Your task to perform on an android device: open app "Microsoft Excel" Image 0: 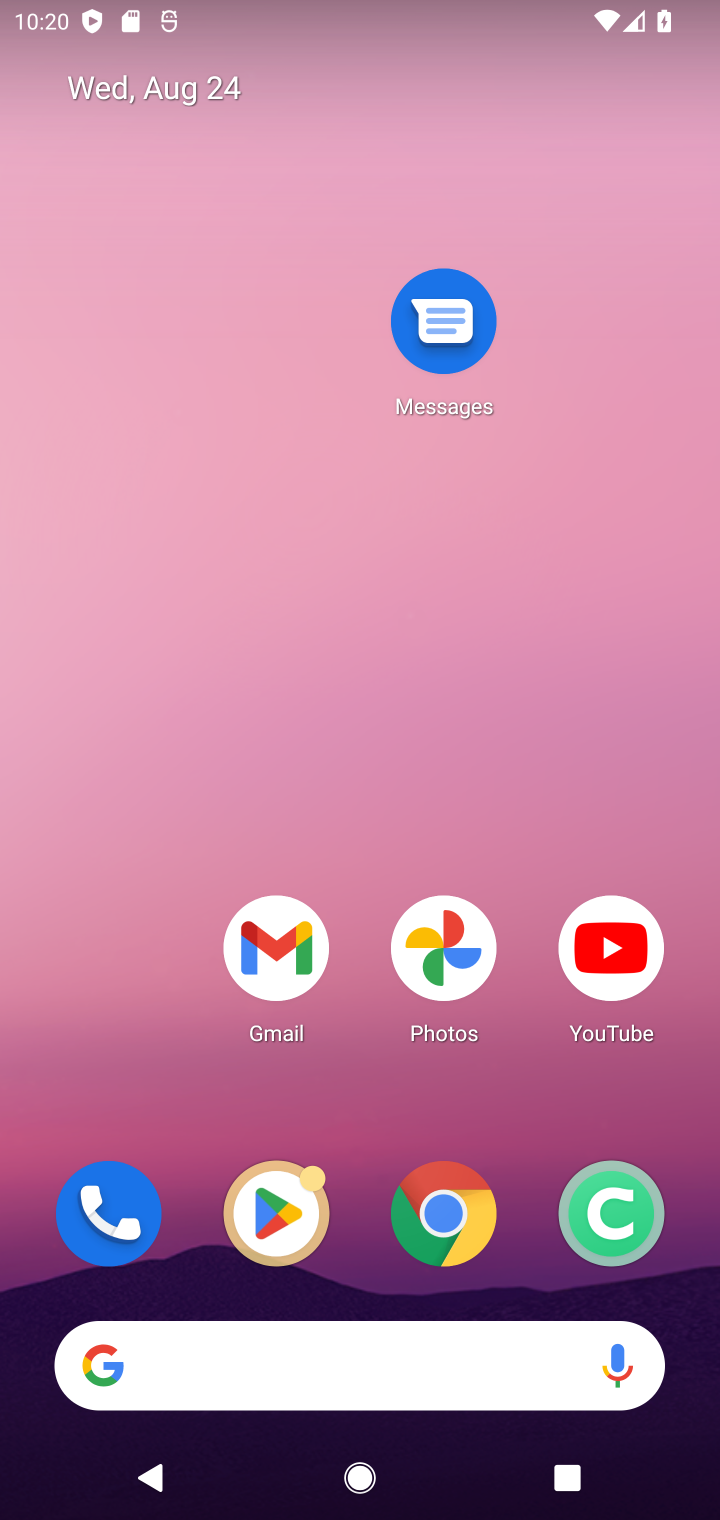
Step 0: click (296, 1208)
Your task to perform on an android device: open app "Microsoft Excel" Image 1: 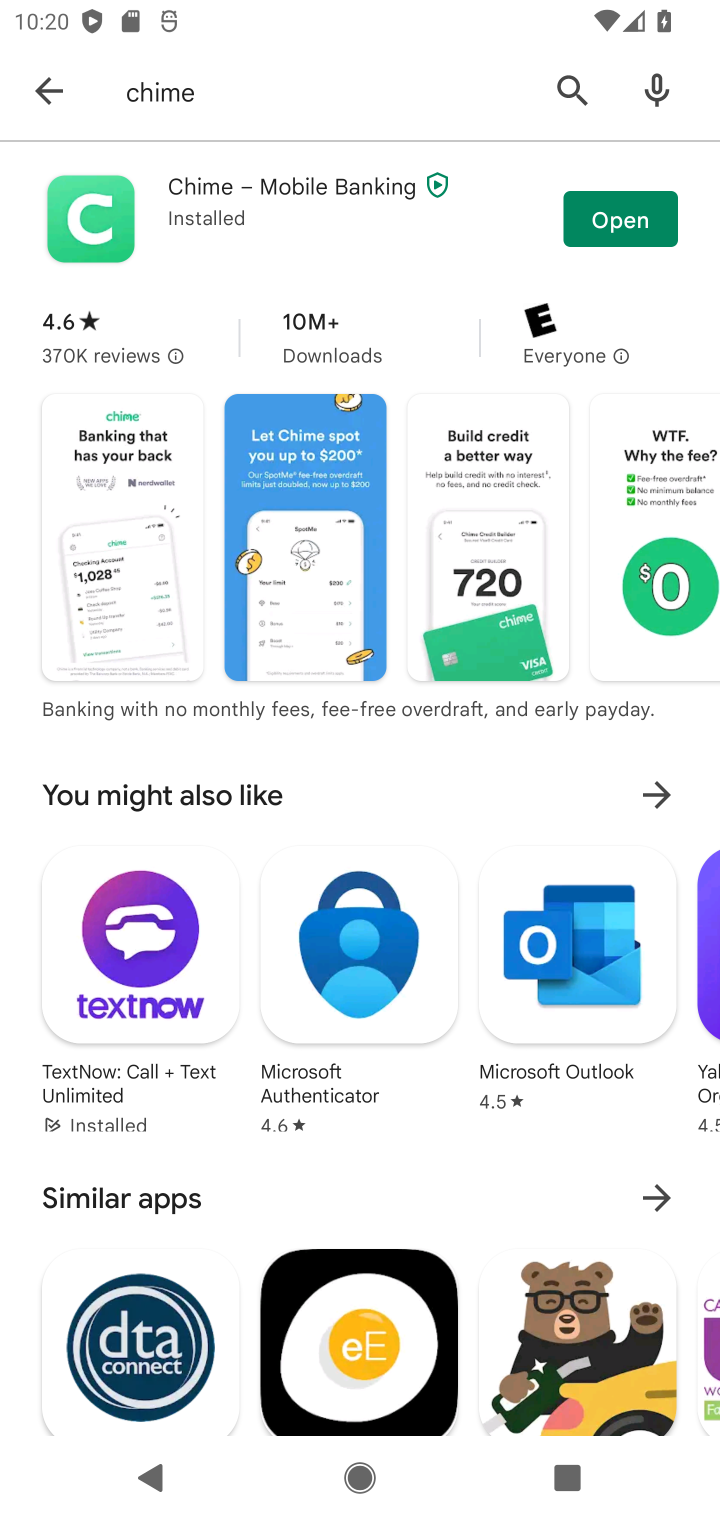
Step 1: click (271, 80)
Your task to perform on an android device: open app "Microsoft Excel" Image 2: 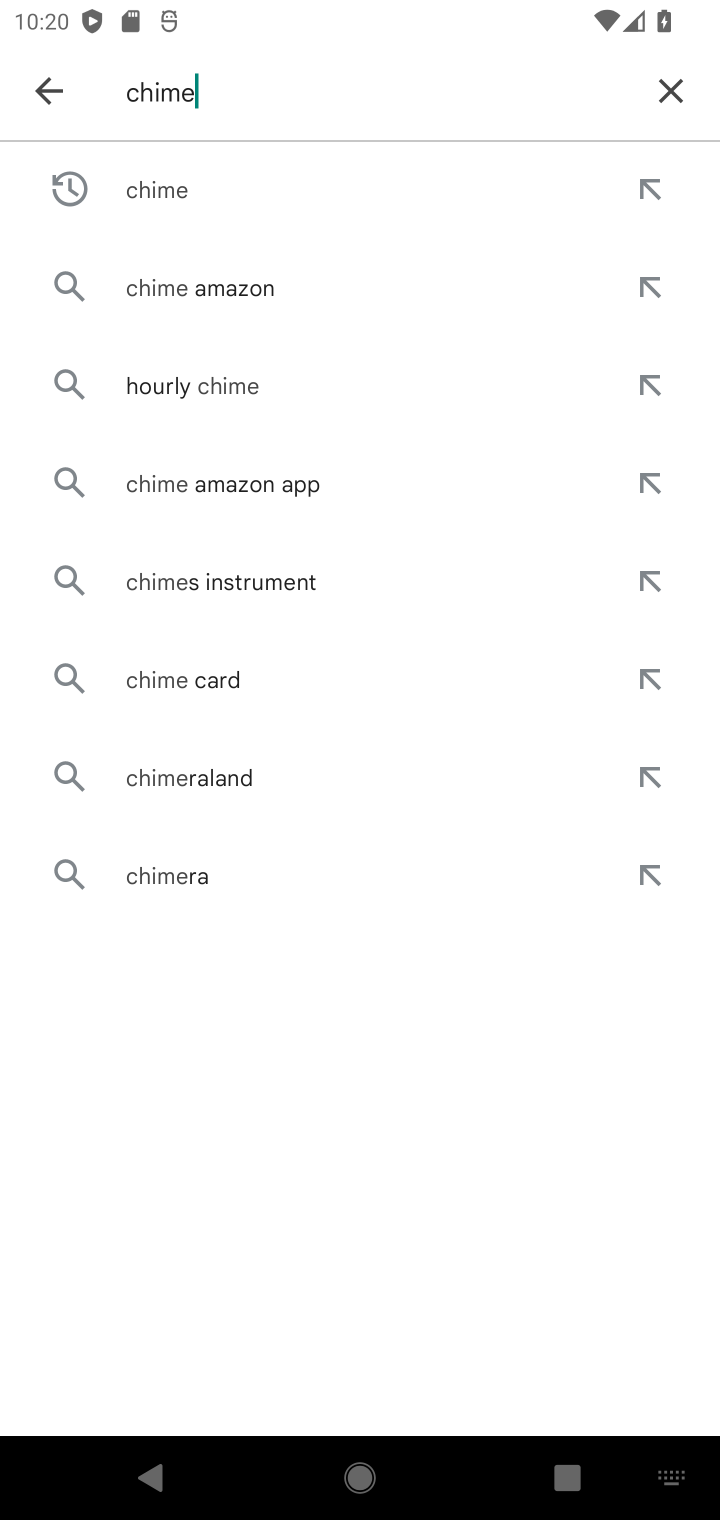
Step 2: click (674, 82)
Your task to perform on an android device: open app "Microsoft Excel" Image 3: 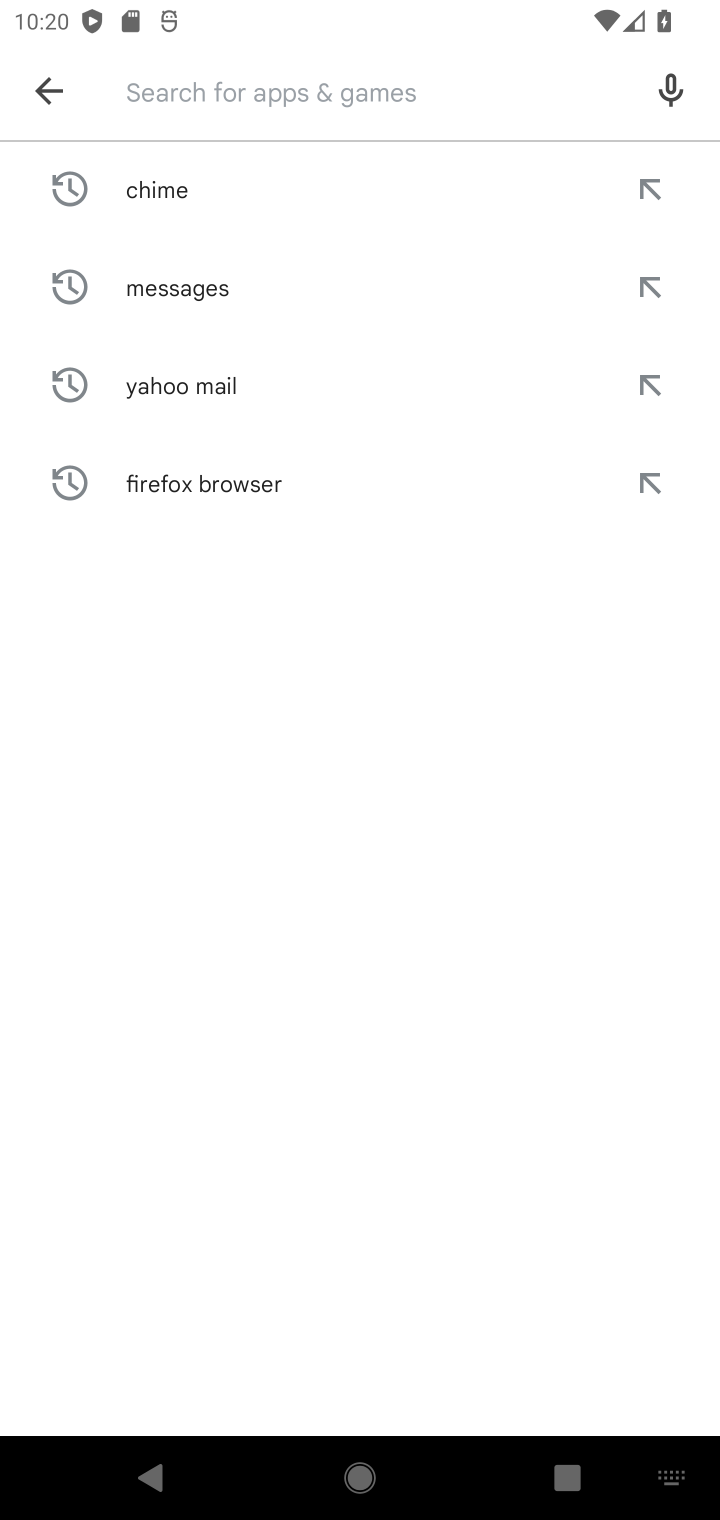
Step 3: type "microsoft excel"
Your task to perform on an android device: open app "Microsoft Excel" Image 4: 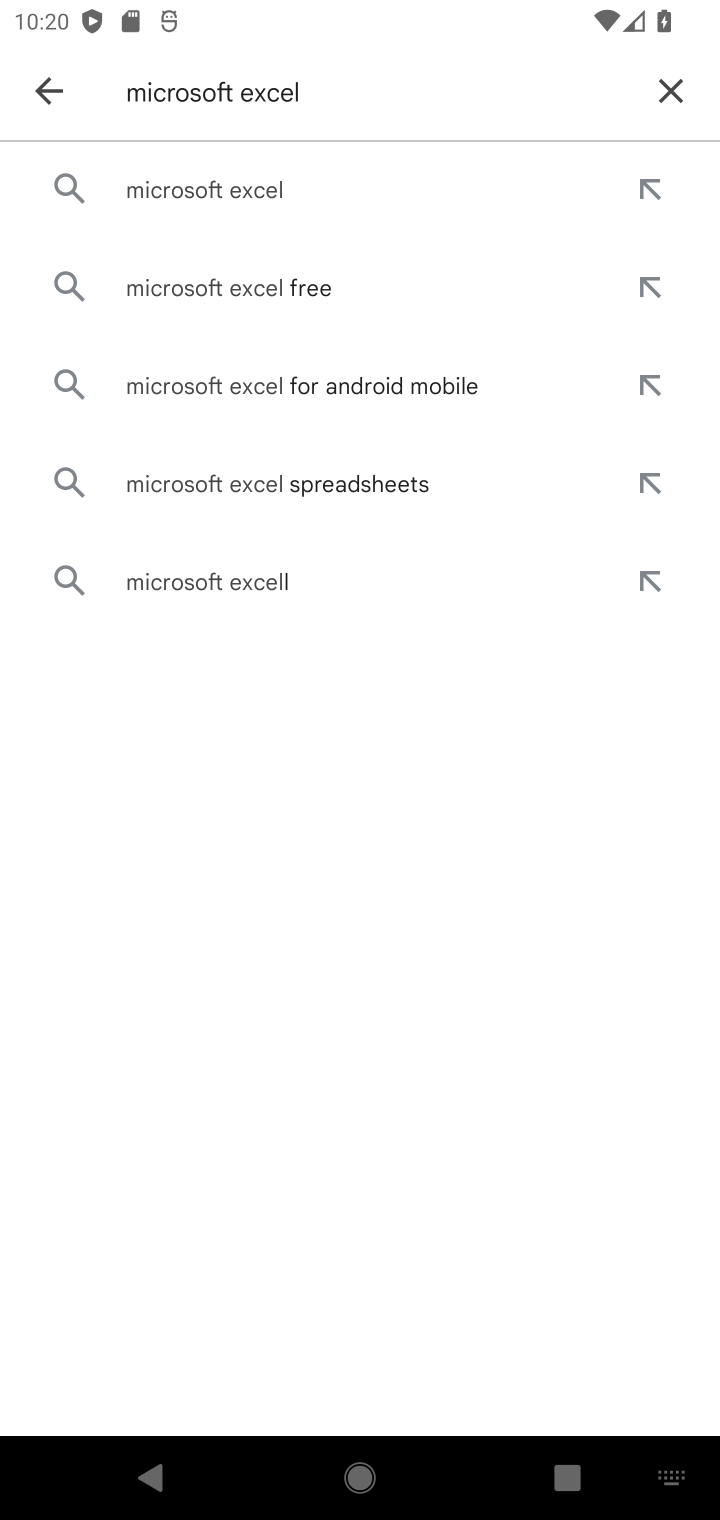
Step 4: click (293, 210)
Your task to perform on an android device: open app "Microsoft Excel" Image 5: 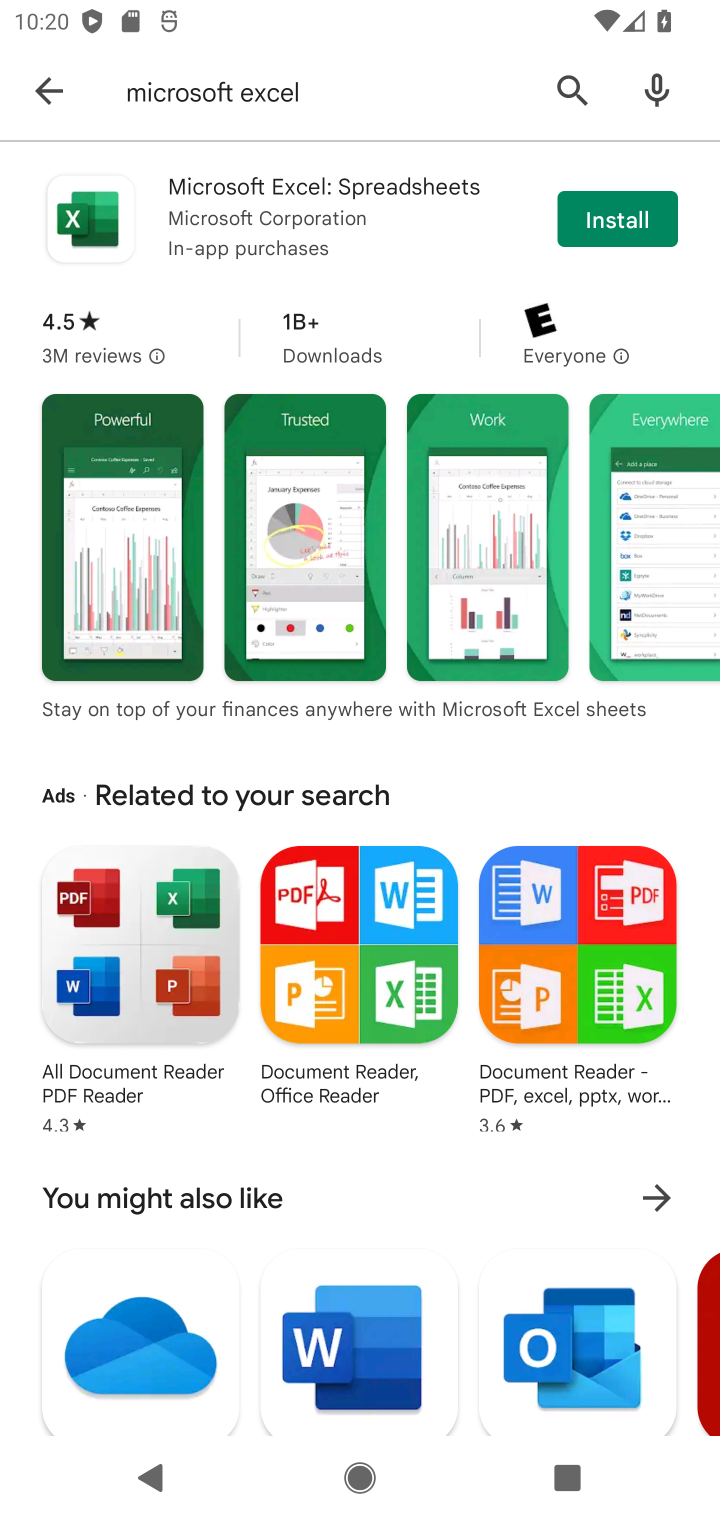
Step 5: task complete